Your task to perform on an android device: Do I have any events this weekend? Image 0: 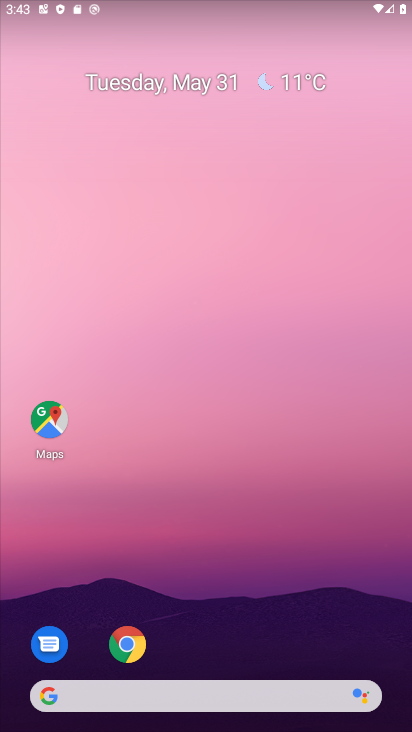
Step 0: click (198, 79)
Your task to perform on an android device: Do I have any events this weekend? Image 1: 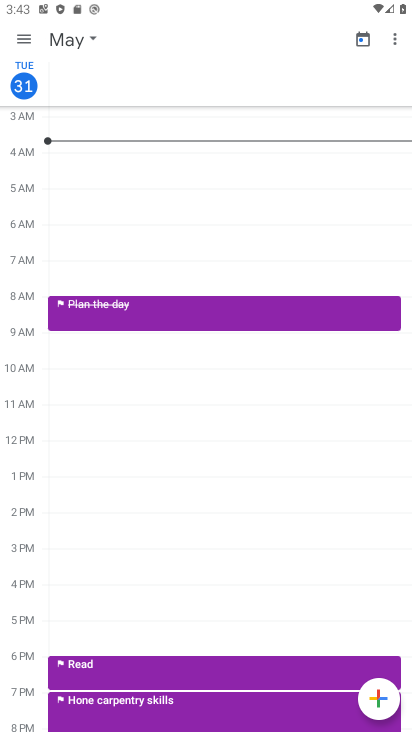
Step 1: click (24, 32)
Your task to perform on an android device: Do I have any events this weekend? Image 2: 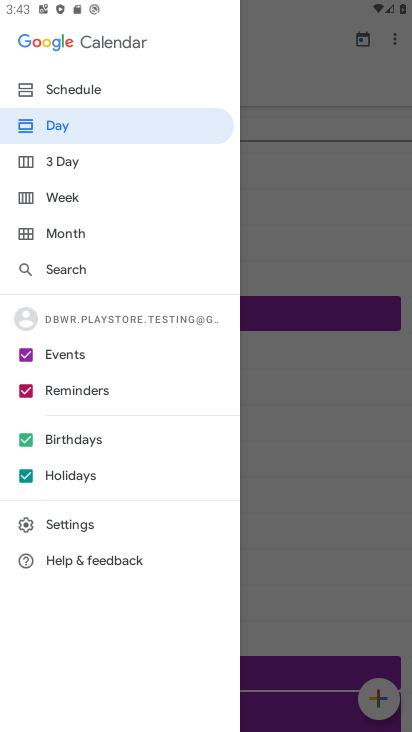
Step 2: click (26, 394)
Your task to perform on an android device: Do I have any events this weekend? Image 3: 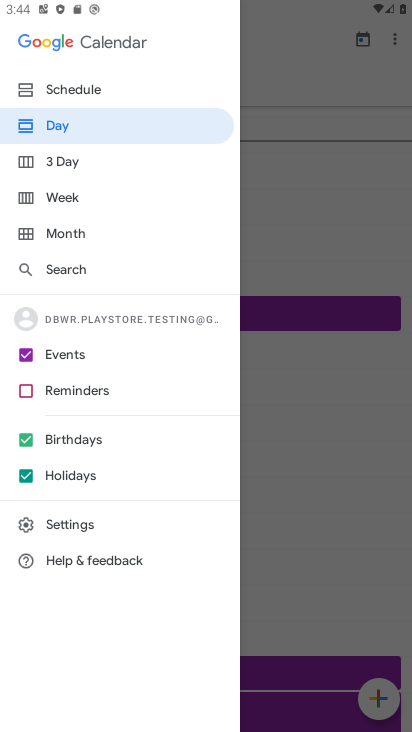
Step 3: click (24, 435)
Your task to perform on an android device: Do I have any events this weekend? Image 4: 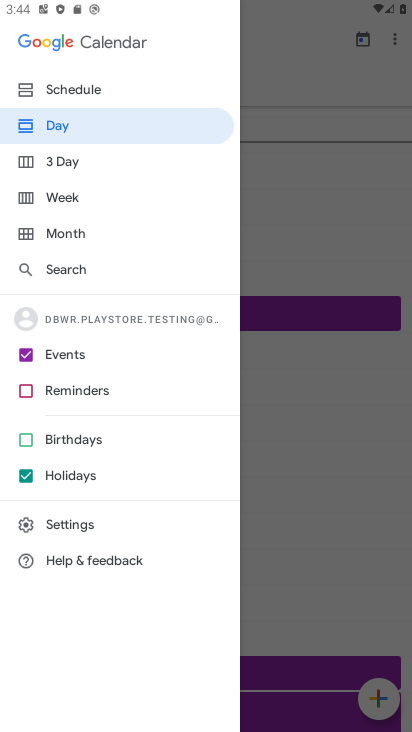
Step 4: click (27, 473)
Your task to perform on an android device: Do I have any events this weekend? Image 5: 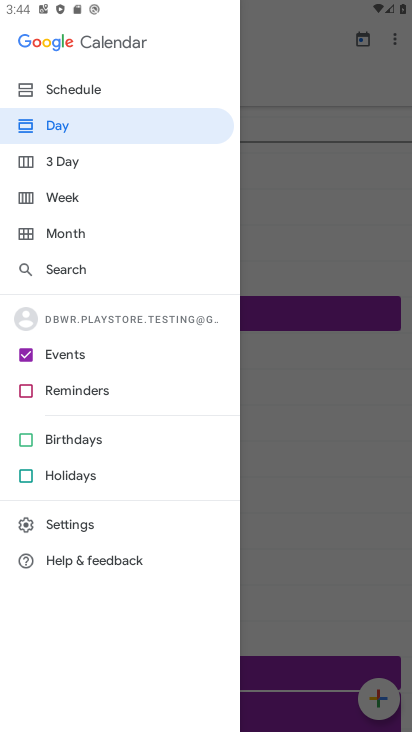
Step 5: click (65, 163)
Your task to perform on an android device: Do I have any events this weekend? Image 6: 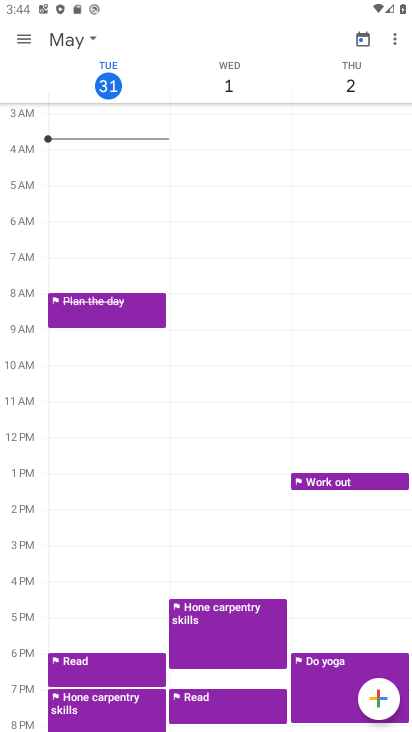
Step 6: task complete